Your task to perform on an android device: Open the calendar and show me this week's events? Image 0: 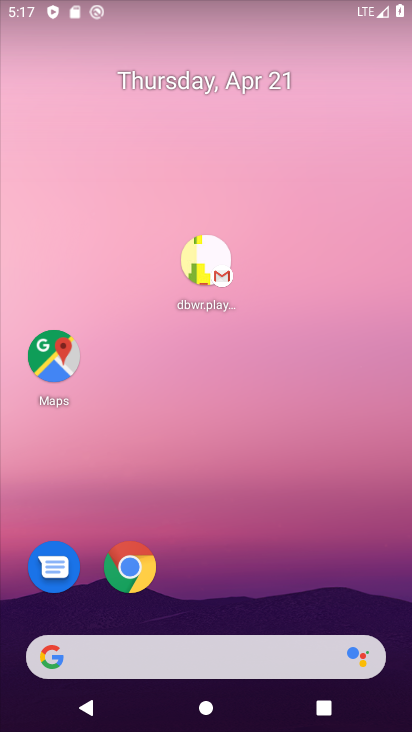
Step 0: drag from (216, 591) to (283, 29)
Your task to perform on an android device: Open the calendar and show me this week's events? Image 1: 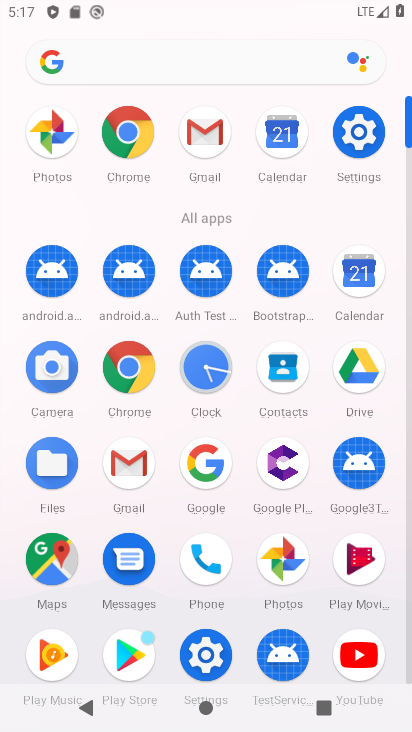
Step 1: click (356, 279)
Your task to perform on an android device: Open the calendar and show me this week's events? Image 2: 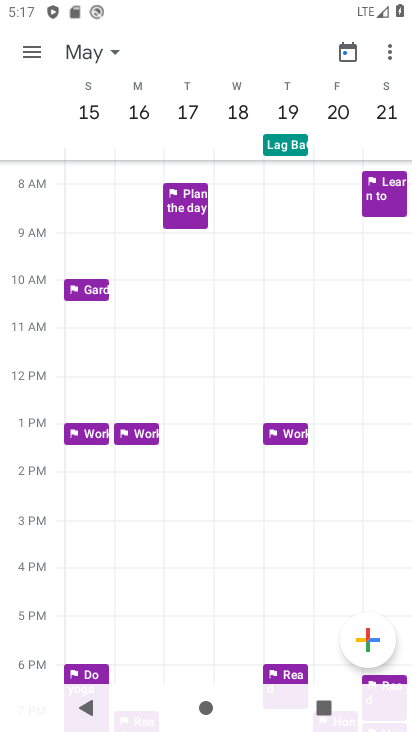
Step 2: task complete